Your task to perform on an android device: allow notifications from all sites in the chrome app Image 0: 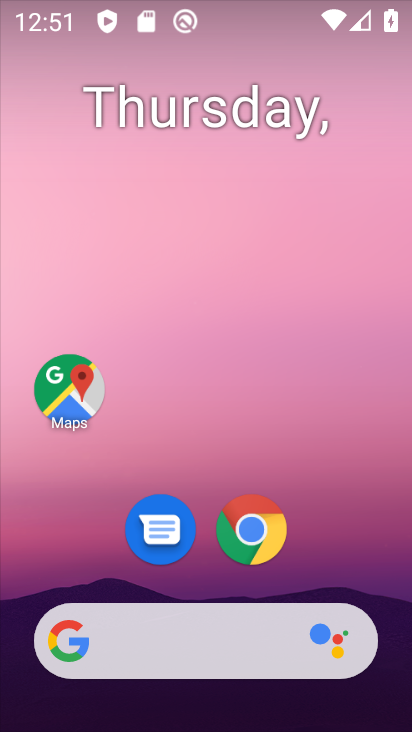
Step 0: drag from (383, 560) to (357, 164)
Your task to perform on an android device: allow notifications from all sites in the chrome app Image 1: 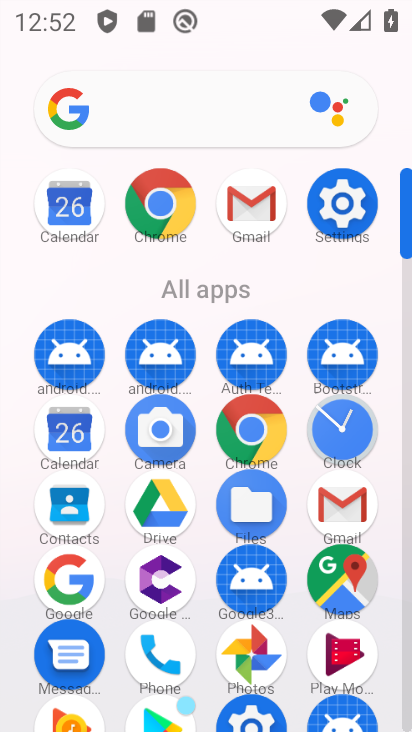
Step 1: click (256, 454)
Your task to perform on an android device: allow notifications from all sites in the chrome app Image 2: 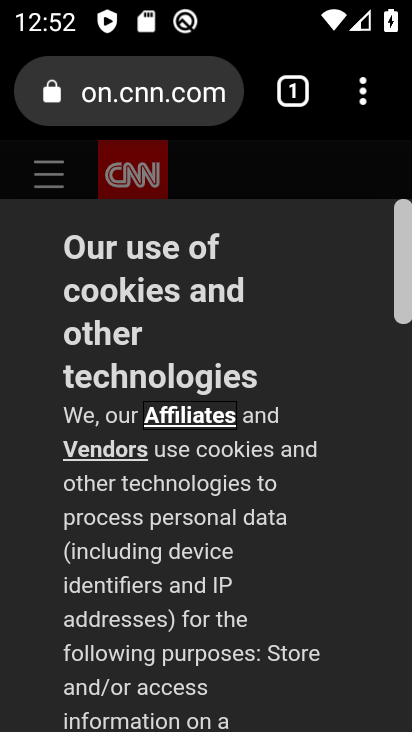
Step 2: task complete